Your task to perform on an android device: Is it going to rain tomorrow? Image 0: 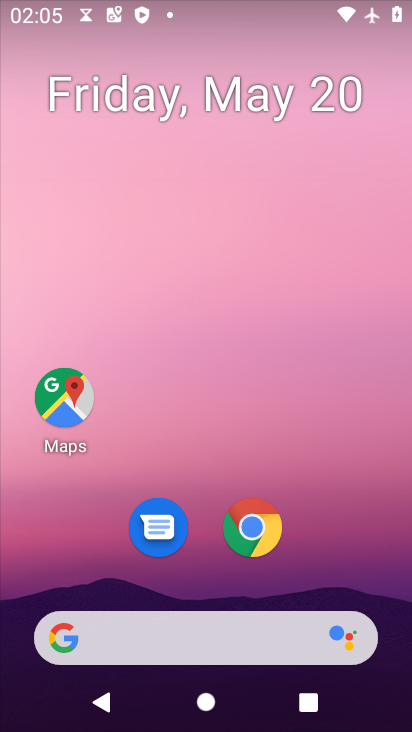
Step 0: press home button
Your task to perform on an android device: Is it going to rain tomorrow? Image 1: 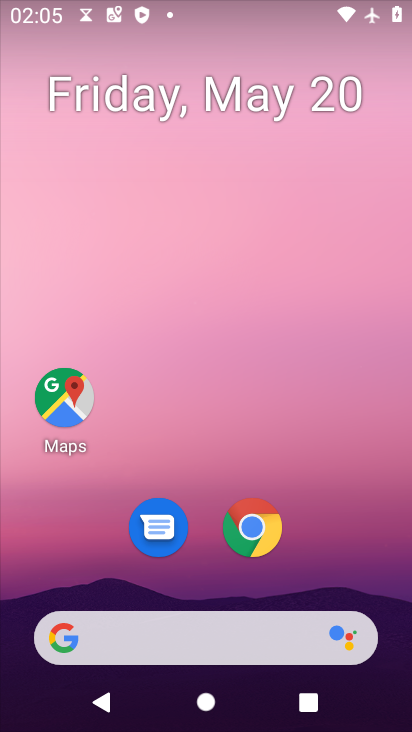
Step 1: click (72, 647)
Your task to perform on an android device: Is it going to rain tomorrow? Image 2: 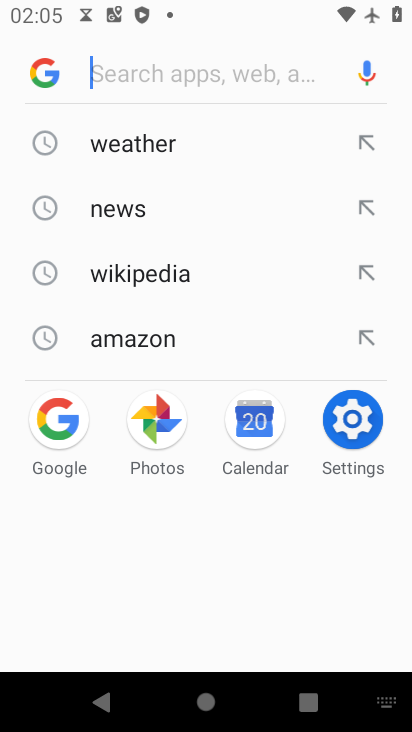
Step 2: click (134, 147)
Your task to perform on an android device: Is it going to rain tomorrow? Image 3: 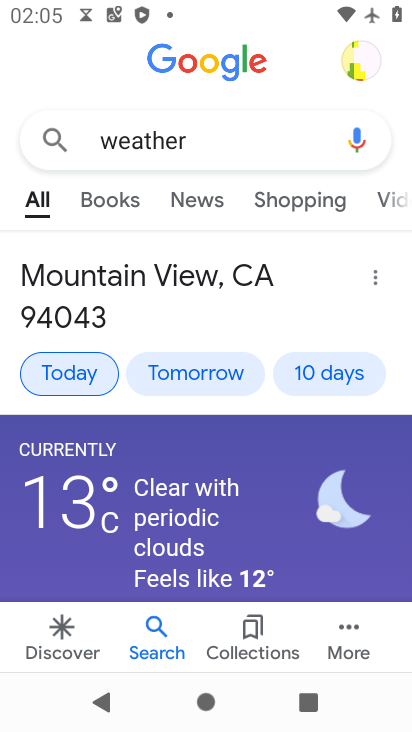
Step 3: click (181, 375)
Your task to perform on an android device: Is it going to rain tomorrow? Image 4: 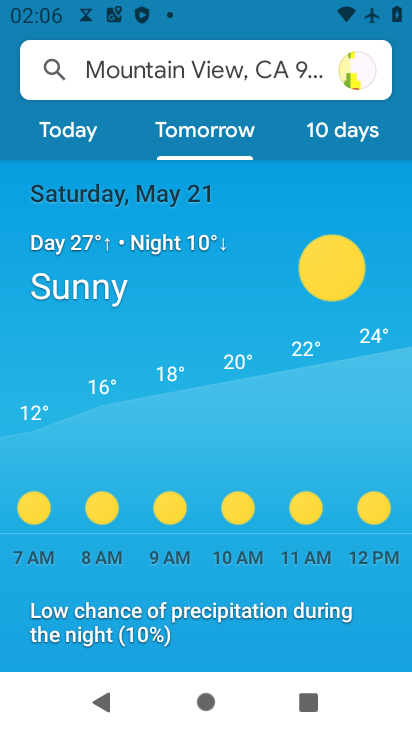
Step 4: task complete